Your task to perform on an android device: What's the weather going to be tomorrow? Image 0: 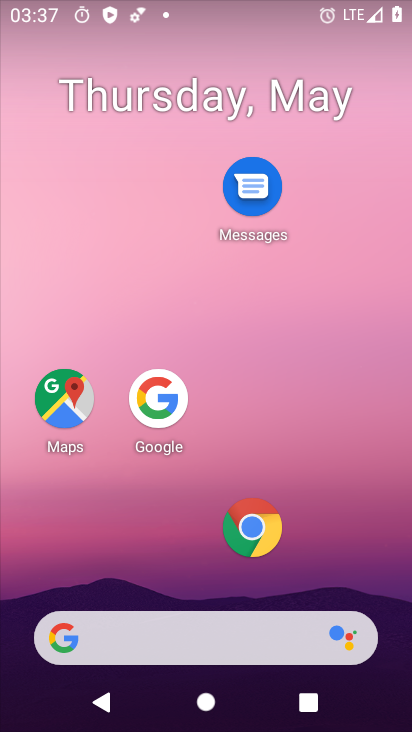
Step 0: drag from (223, 573) to (221, 219)
Your task to perform on an android device: What's the weather going to be tomorrow? Image 1: 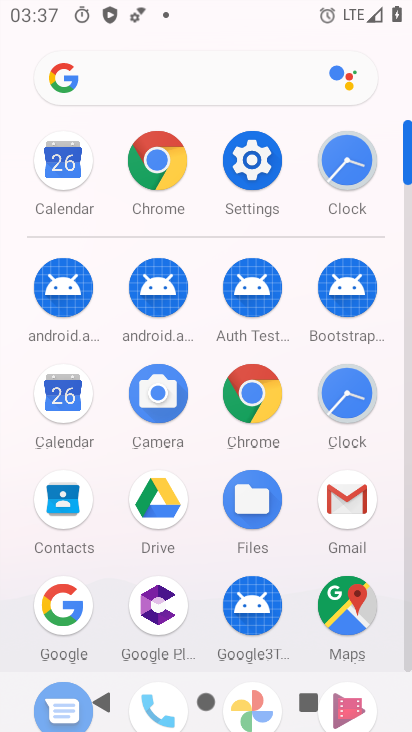
Step 1: click (210, 86)
Your task to perform on an android device: What's the weather going to be tomorrow? Image 2: 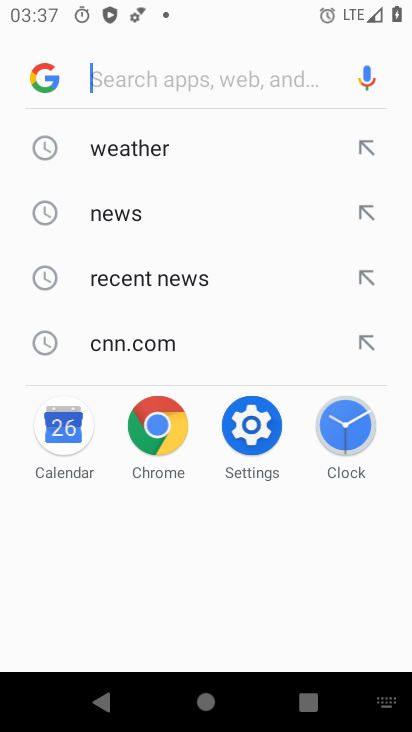
Step 2: type "What's the weather going to be tomorrow?"
Your task to perform on an android device: What's the weather going to be tomorrow? Image 3: 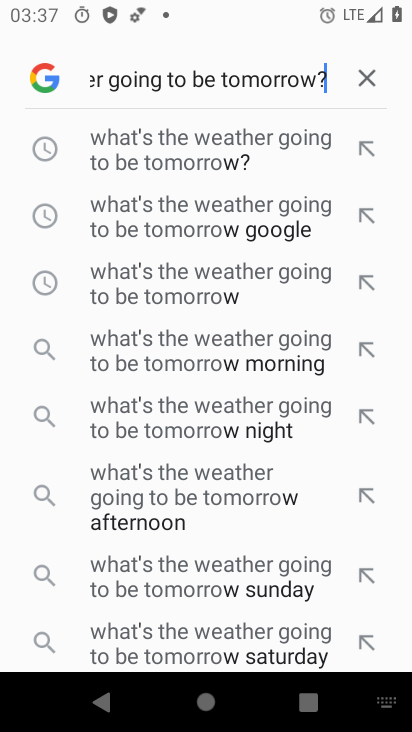
Step 3: type ""
Your task to perform on an android device: What's the weather going to be tomorrow? Image 4: 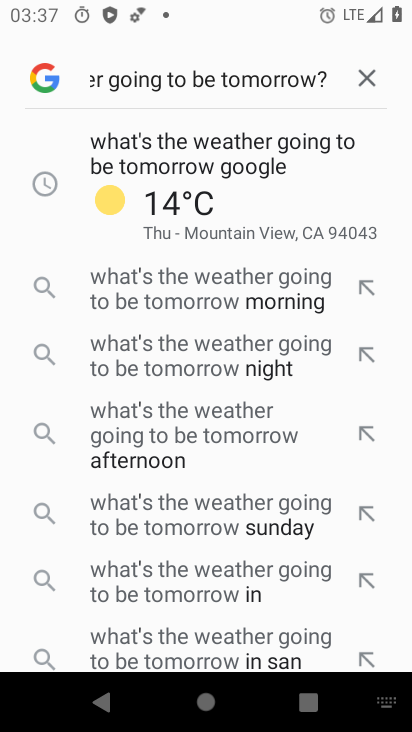
Step 4: click (168, 145)
Your task to perform on an android device: What's the weather going to be tomorrow? Image 5: 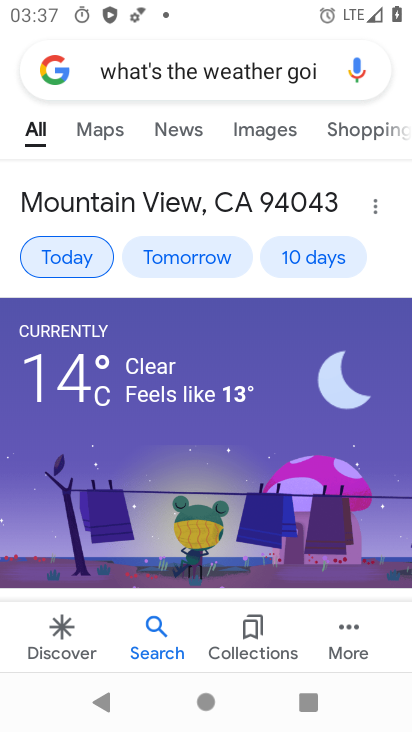
Step 5: task complete